Your task to perform on an android device: Open the calendar and show me this week's events Image 0: 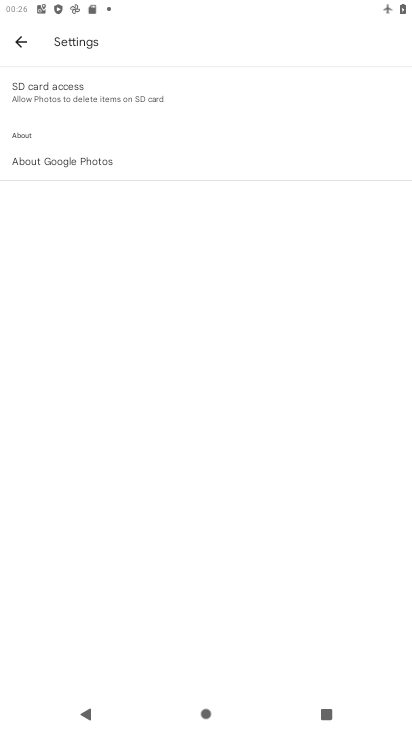
Step 0: press home button
Your task to perform on an android device: Open the calendar and show me this week's events Image 1: 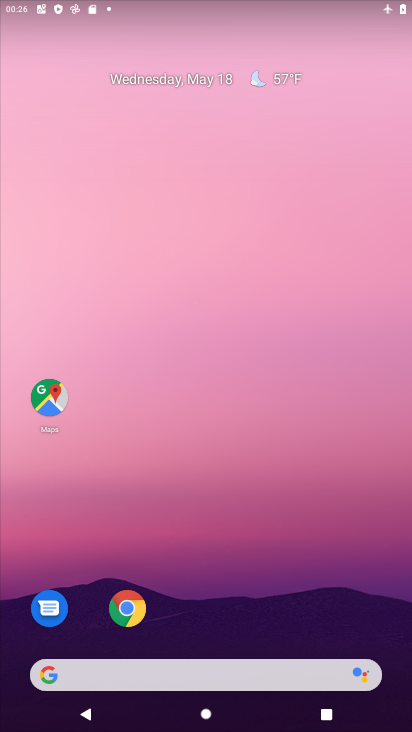
Step 1: drag from (198, 528) to (120, 85)
Your task to perform on an android device: Open the calendar and show me this week's events Image 2: 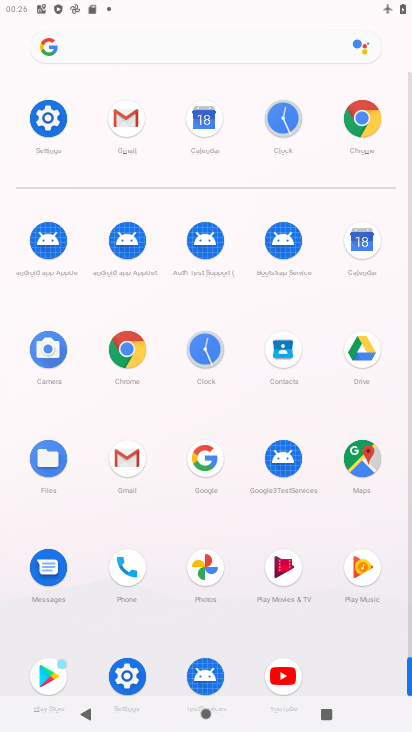
Step 2: click (359, 239)
Your task to perform on an android device: Open the calendar and show me this week's events Image 3: 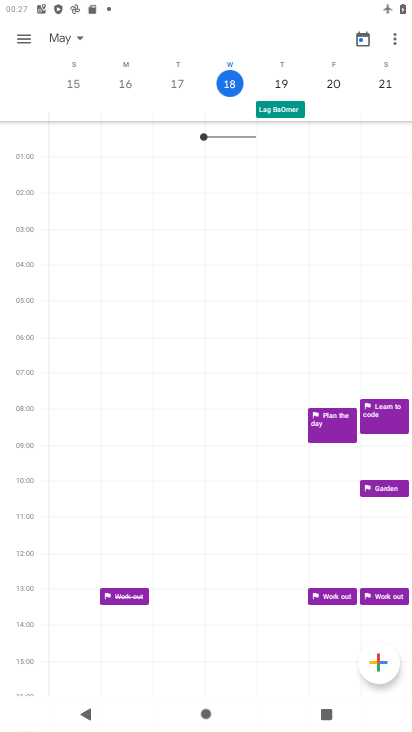
Step 3: task complete